Your task to perform on an android device: Open CNN.com Image 0: 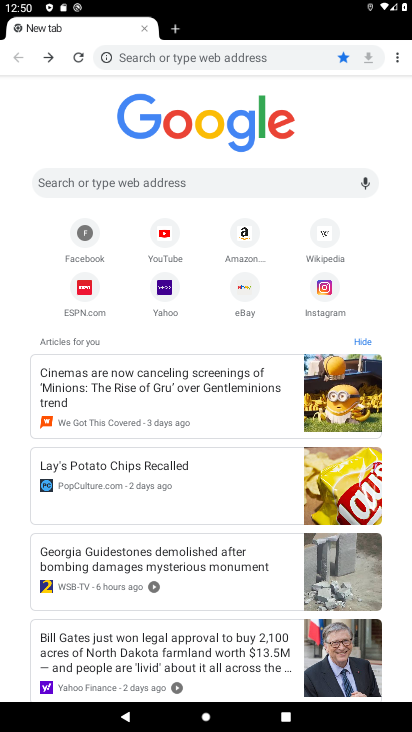
Step 0: click (212, 176)
Your task to perform on an android device: Open CNN.com Image 1: 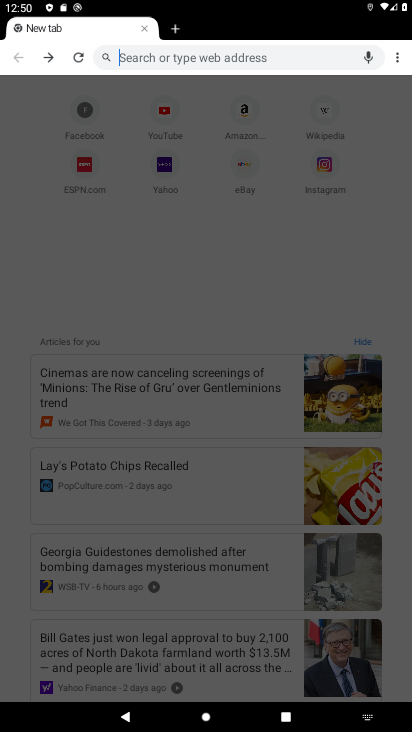
Step 1: type "cnn.com"
Your task to perform on an android device: Open CNN.com Image 2: 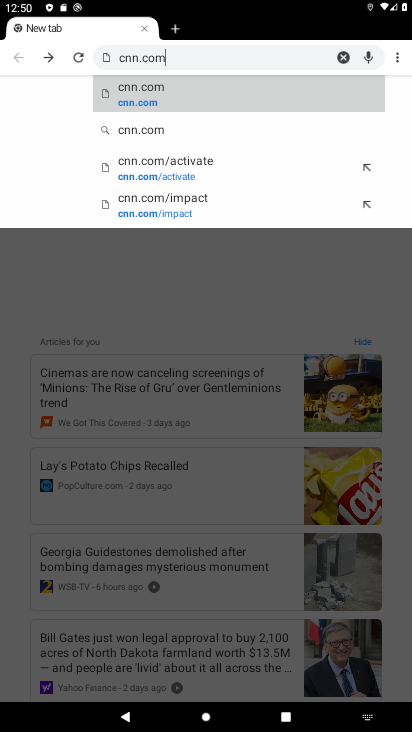
Step 2: click (174, 93)
Your task to perform on an android device: Open CNN.com Image 3: 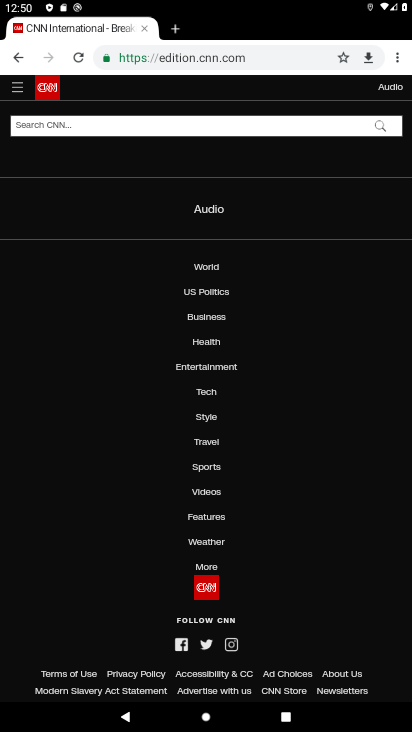
Step 3: task complete